Your task to perform on an android device: find snoozed emails in the gmail app Image 0: 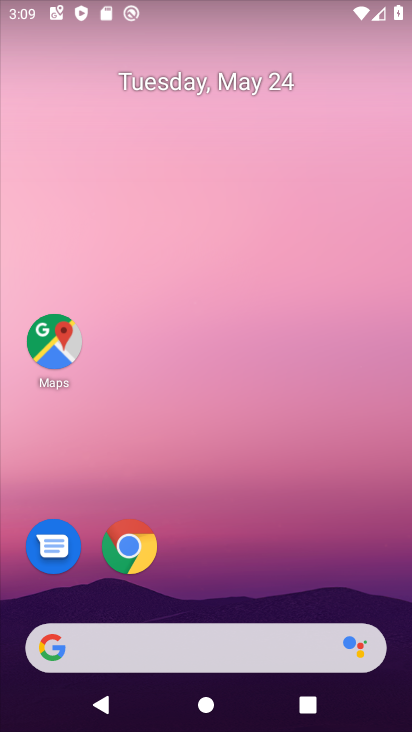
Step 0: drag from (276, 415) to (150, 12)
Your task to perform on an android device: find snoozed emails in the gmail app Image 1: 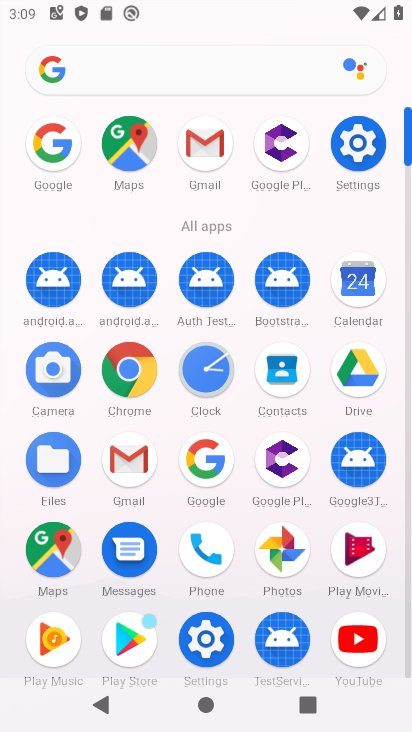
Step 1: click (203, 161)
Your task to perform on an android device: find snoozed emails in the gmail app Image 2: 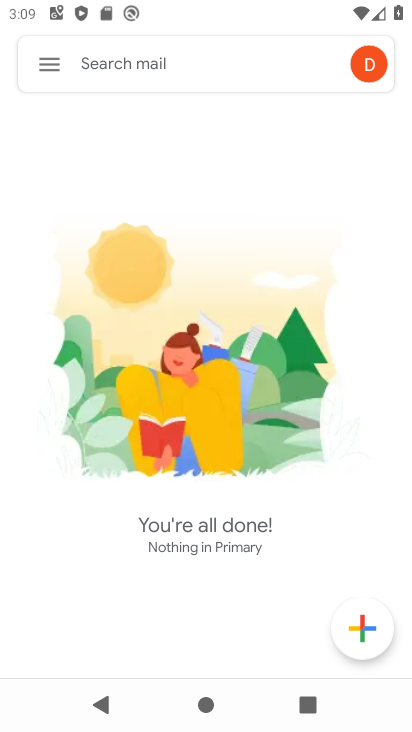
Step 2: click (55, 61)
Your task to perform on an android device: find snoozed emails in the gmail app Image 3: 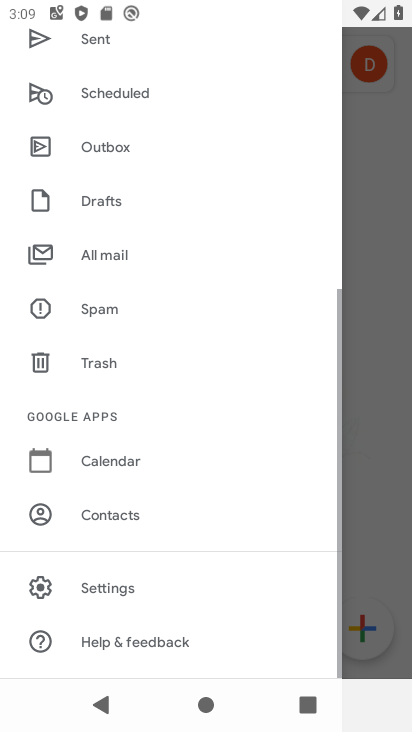
Step 3: drag from (164, 107) to (126, 653)
Your task to perform on an android device: find snoozed emails in the gmail app Image 4: 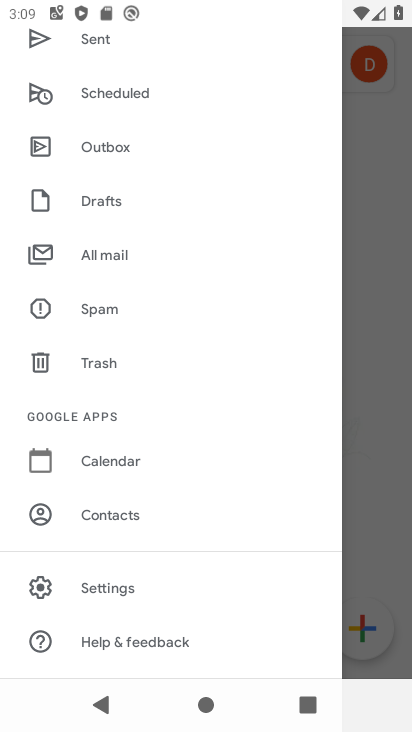
Step 4: drag from (139, 188) to (148, 587)
Your task to perform on an android device: find snoozed emails in the gmail app Image 5: 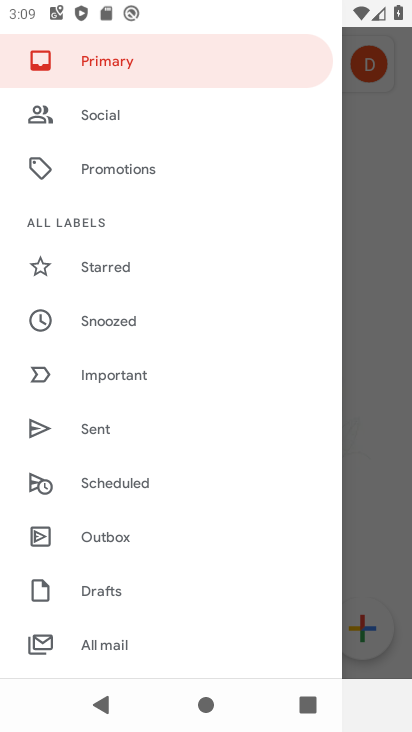
Step 5: click (121, 316)
Your task to perform on an android device: find snoozed emails in the gmail app Image 6: 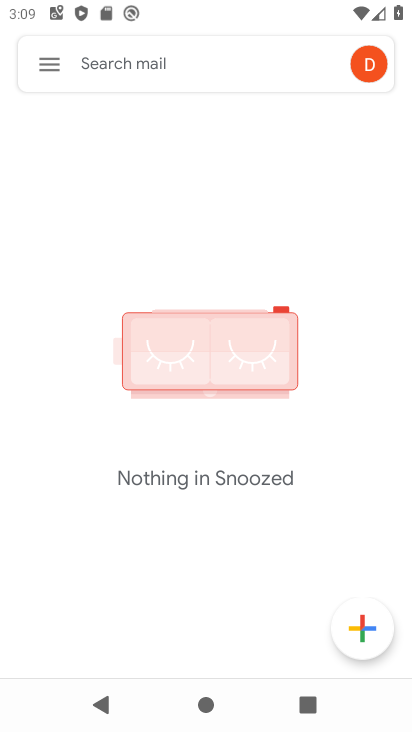
Step 6: task complete